Your task to perform on an android device: open app "Microsoft Authenticator" (install if not already installed) Image 0: 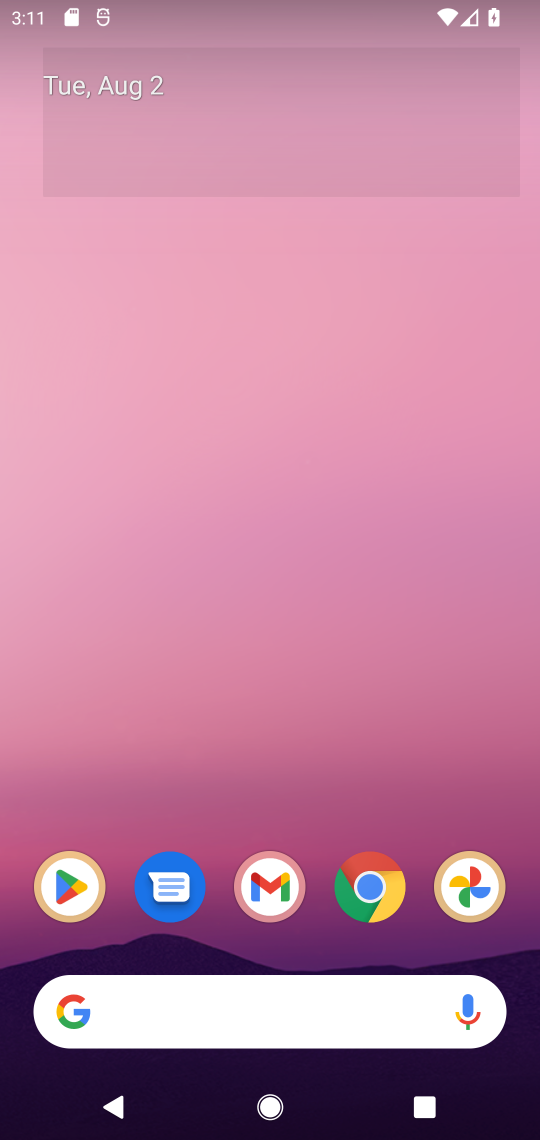
Step 0: click (56, 886)
Your task to perform on an android device: open app "Microsoft Authenticator" (install if not already installed) Image 1: 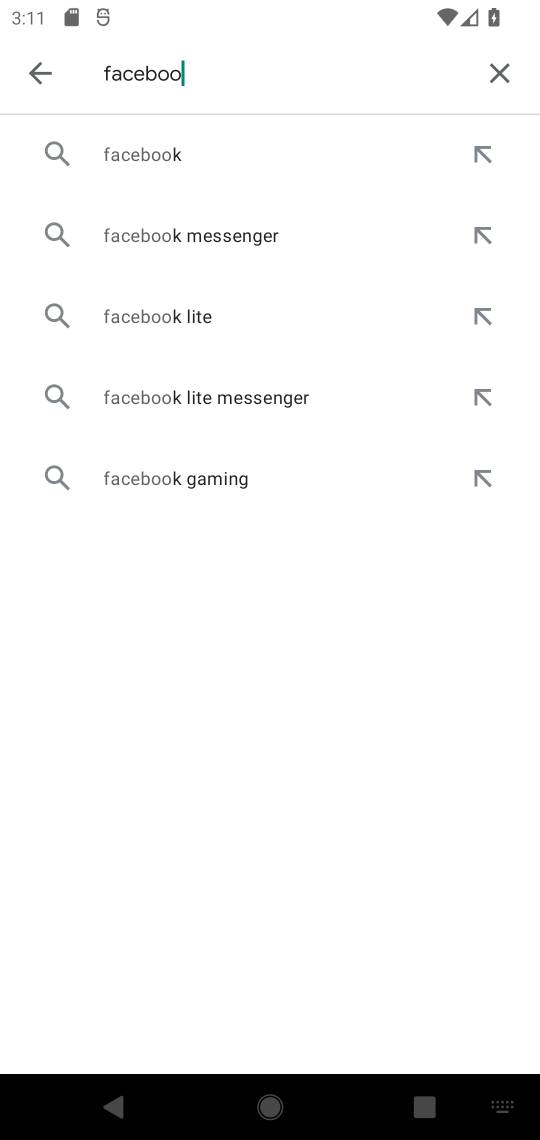
Step 1: click (498, 71)
Your task to perform on an android device: open app "Microsoft Authenticator" (install if not already installed) Image 2: 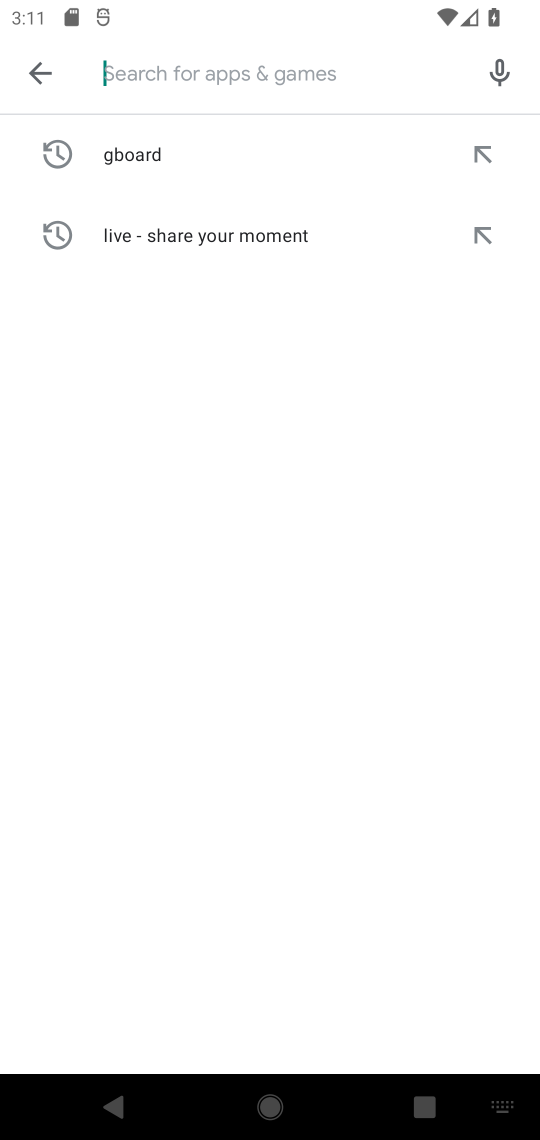
Step 2: type "Microsoft Authenticator"
Your task to perform on an android device: open app "Microsoft Authenticator" (install if not already installed) Image 3: 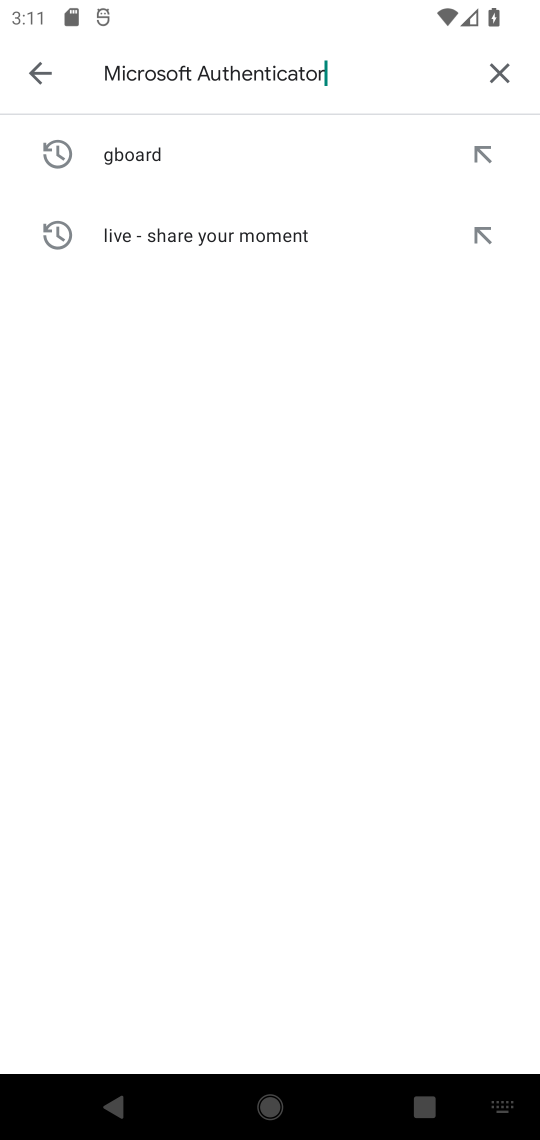
Step 3: type ""
Your task to perform on an android device: open app "Microsoft Authenticator" (install if not already installed) Image 4: 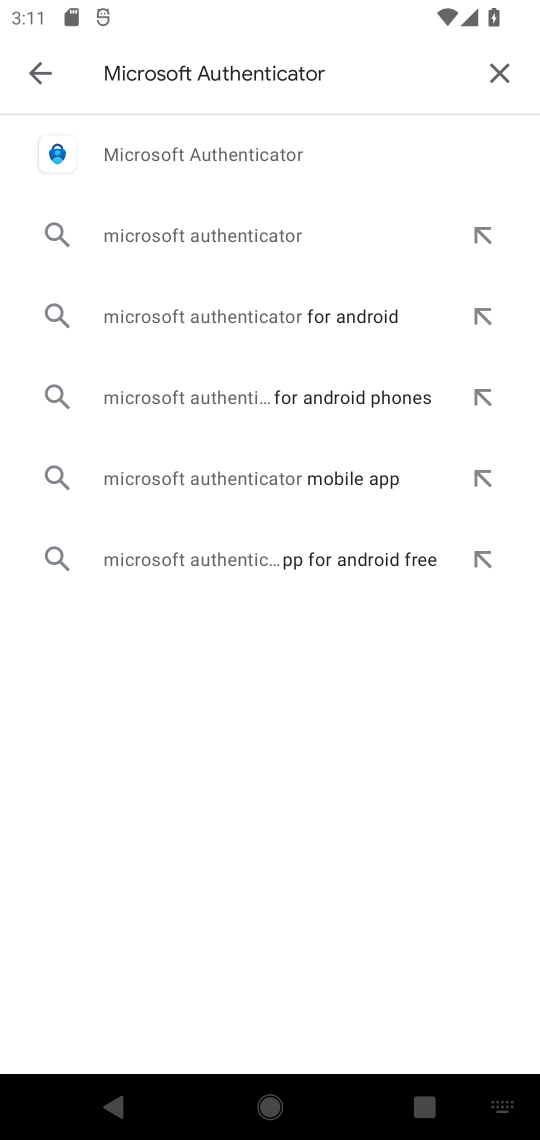
Step 4: click (196, 144)
Your task to perform on an android device: open app "Microsoft Authenticator" (install if not already installed) Image 5: 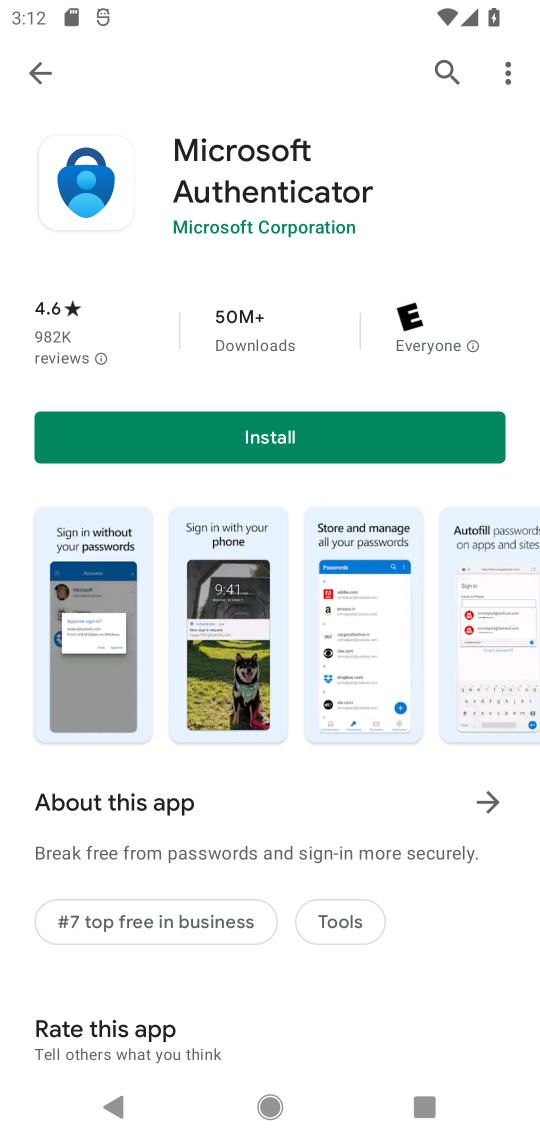
Step 5: click (270, 430)
Your task to perform on an android device: open app "Microsoft Authenticator" (install if not already installed) Image 6: 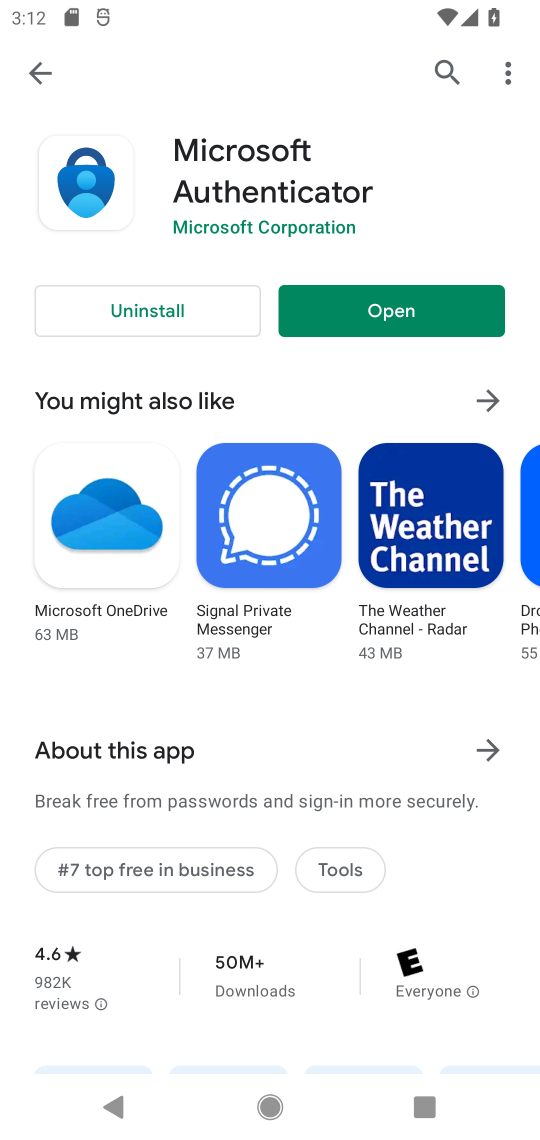
Step 6: task complete